Your task to perform on an android device: Open the map Image 0: 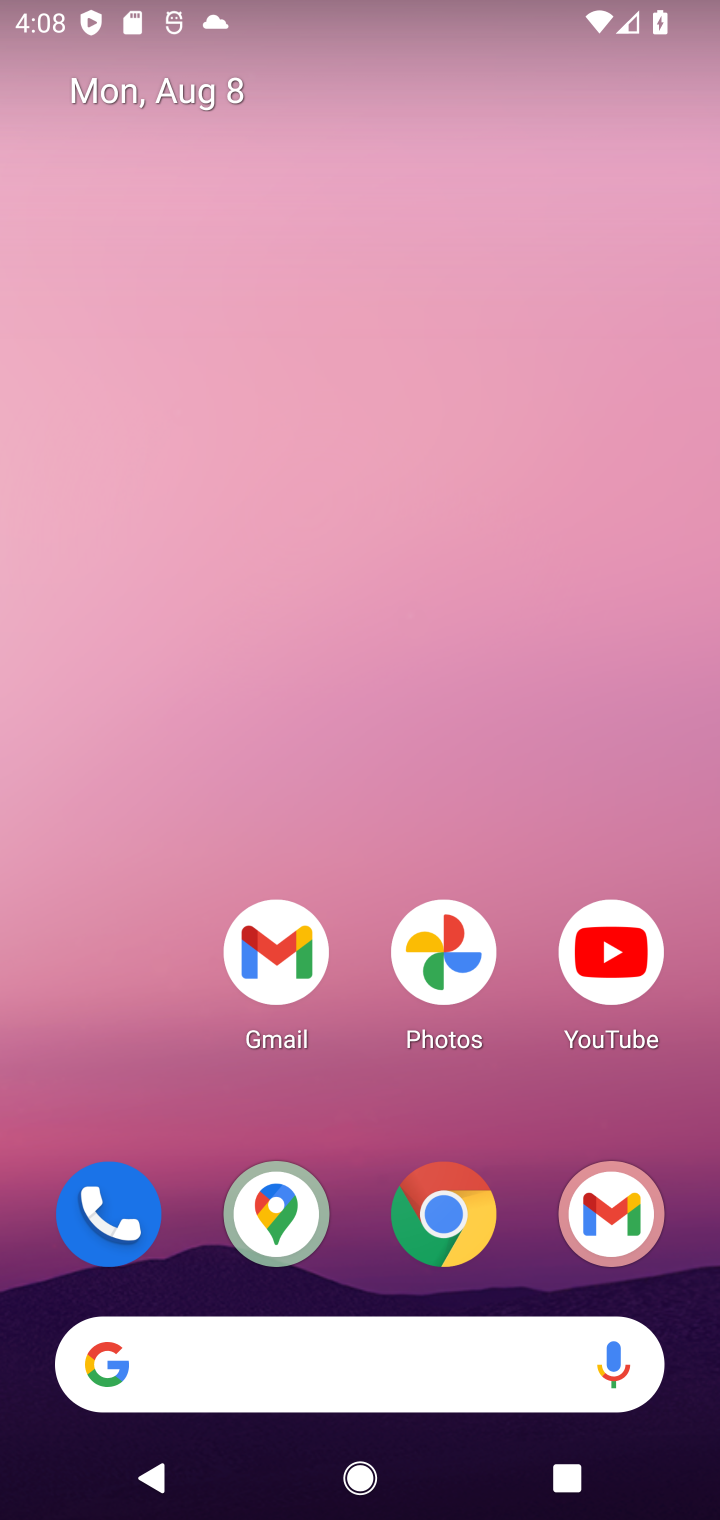
Step 0: drag from (348, 1065) to (303, 268)
Your task to perform on an android device: Open the map Image 1: 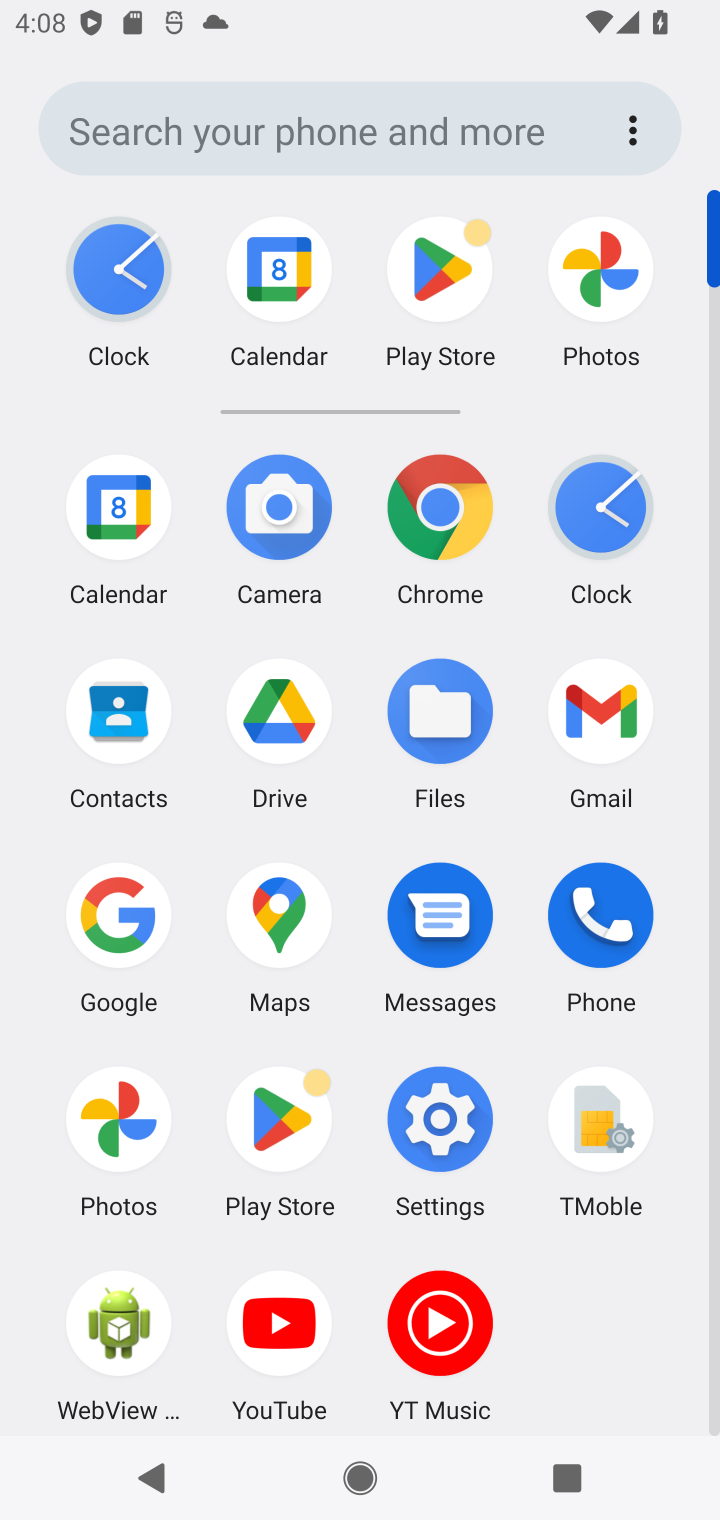
Step 1: click (269, 894)
Your task to perform on an android device: Open the map Image 2: 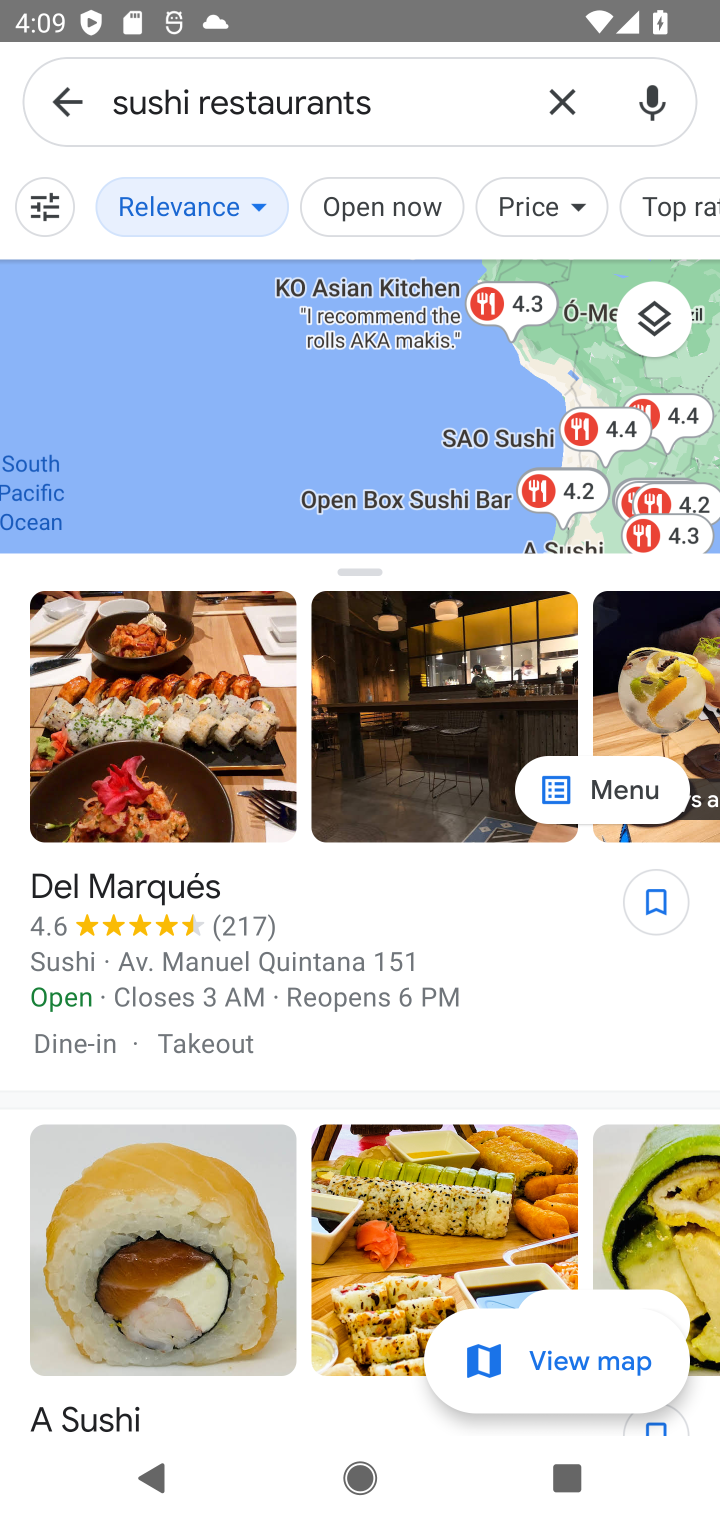
Step 2: task complete